Your task to perform on an android device: Open wifi settings Image 0: 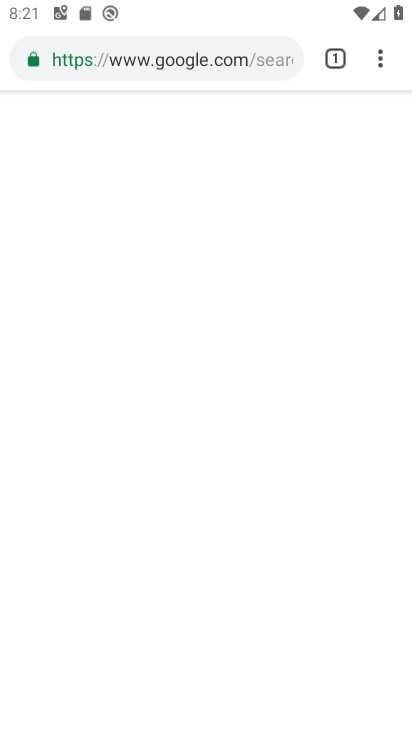
Step 0: press home button
Your task to perform on an android device: Open wifi settings Image 1: 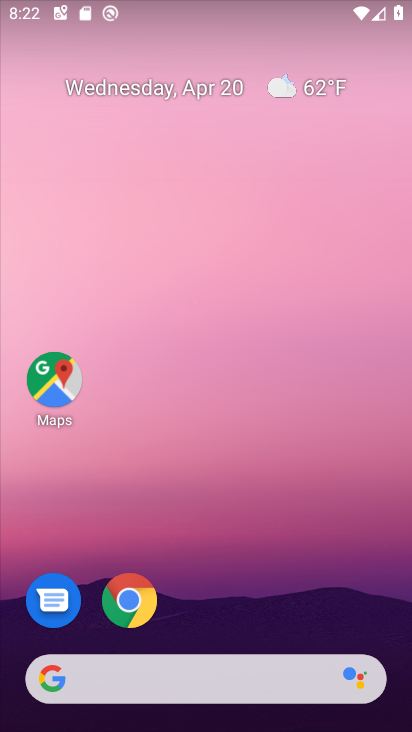
Step 1: drag from (278, 616) to (318, 0)
Your task to perform on an android device: Open wifi settings Image 2: 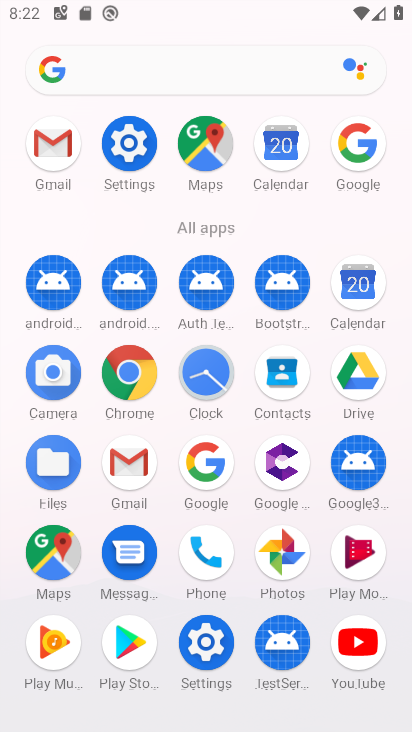
Step 2: click (123, 138)
Your task to perform on an android device: Open wifi settings Image 3: 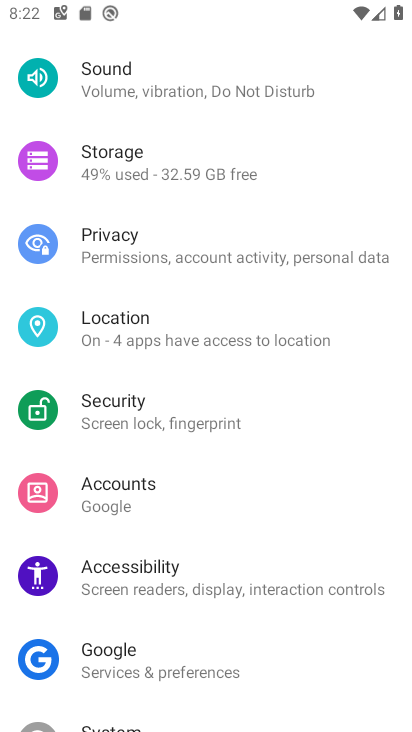
Step 3: drag from (256, 236) to (235, 685)
Your task to perform on an android device: Open wifi settings Image 4: 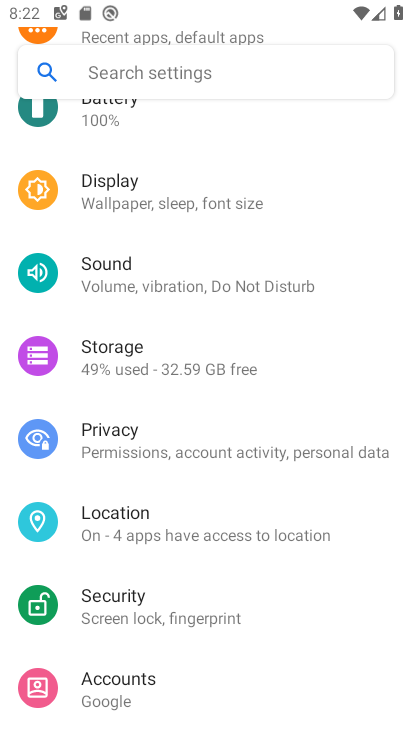
Step 4: drag from (187, 138) to (173, 671)
Your task to perform on an android device: Open wifi settings Image 5: 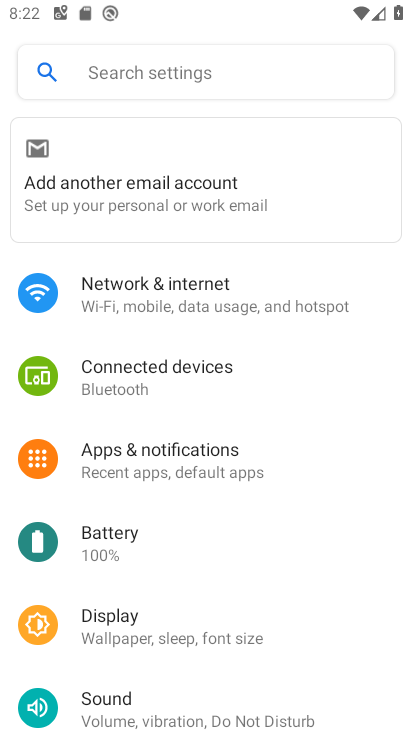
Step 5: click (153, 286)
Your task to perform on an android device: Open wifi settings Image 6: 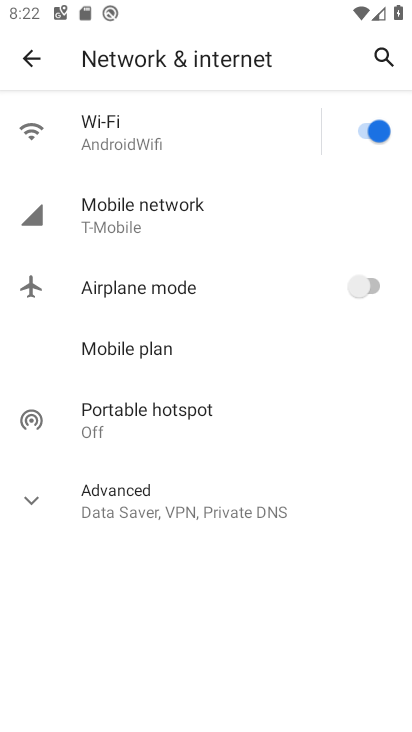
Step 6: click (130, 118)
Your task to perform on an android device: Open wifi settings Image 7: 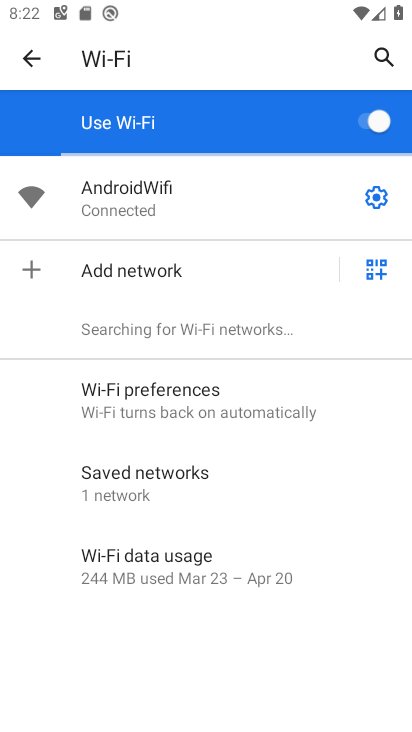
Step 7: task complete